Your task to perform on an android device: change notification settings in the gmail app Image 0: 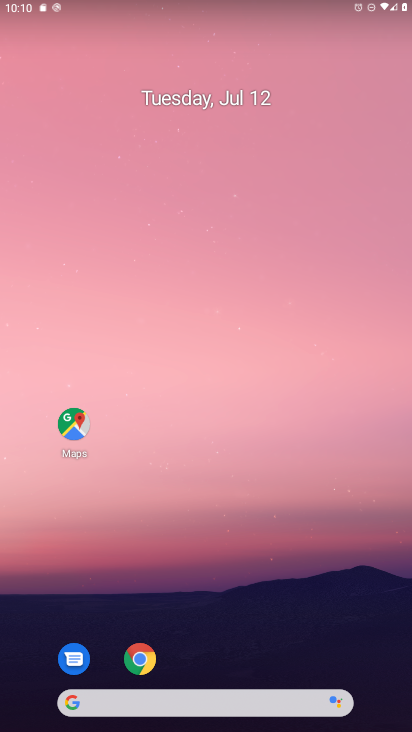
Step 0: drag from (229, 704) to (119, 3)
Your task to perform on an android device: change notification settings in the gmail app Image 1: 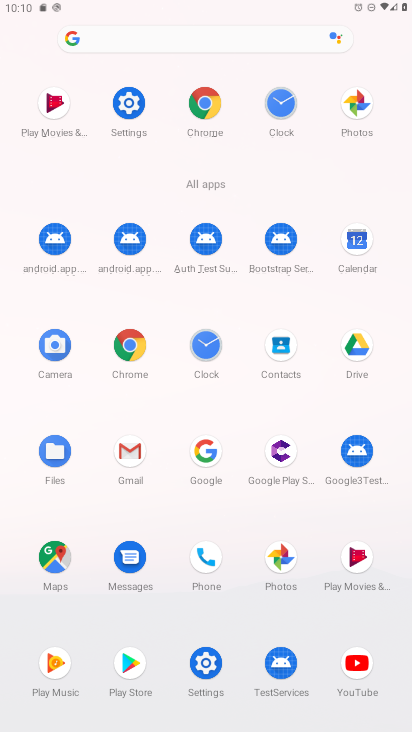
Step 1: click (152, 427)
Your task to perform on an android device: change notification settings in the gmail app Image 2: 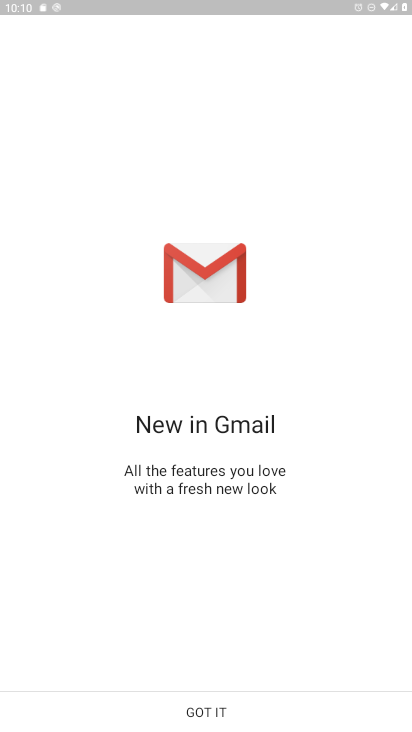
Step 2: click (202, 709)
Your task to perform on an android device: change notification settings in the gmail app Image 3: 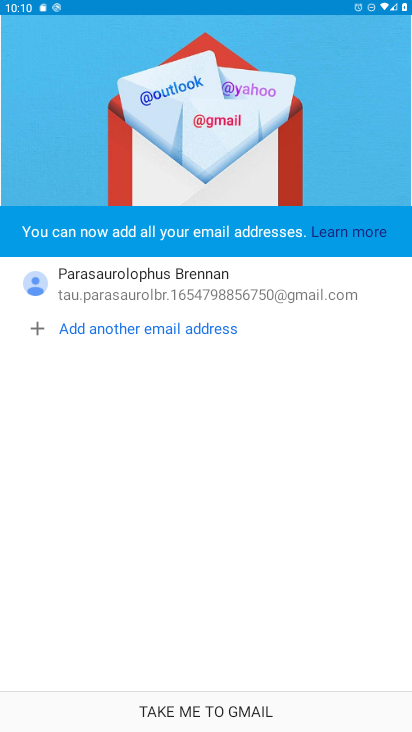
Step 3: click (214, 701)
Your task to perform on an android device: change notification settings in the gmail app Image 4: 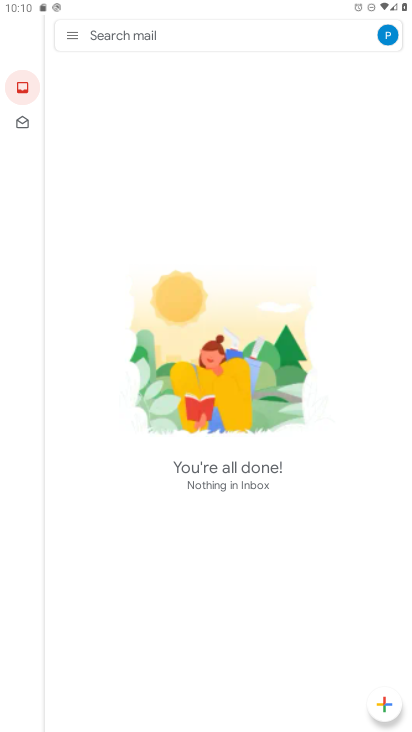
Step 4: click (73, 29)
Your task to perform on an android device: change notification settings in the gmail app Image 5: 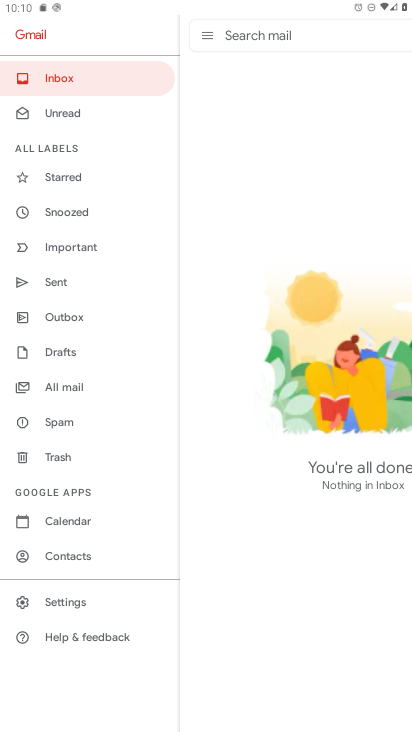
Step 5: click (60, 595)
Your task to perform on an android device: change notification settings in the gmail app Image 6: 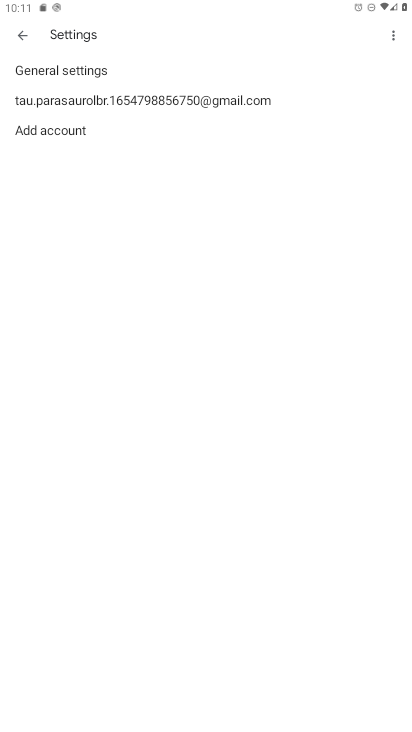
Step 6: click (155, 97)
Your task to perform on an android device: change notification settings in the gmail app Image 7: 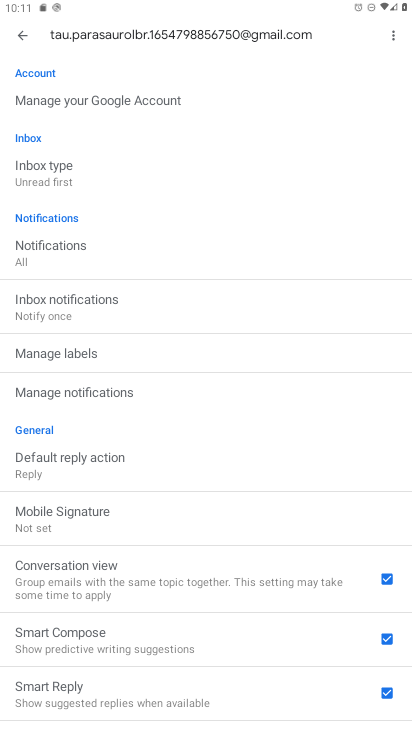
Step 7: click (101, 393)
Your task to perform on an android device: change notification settings in the gmail app Image 8: 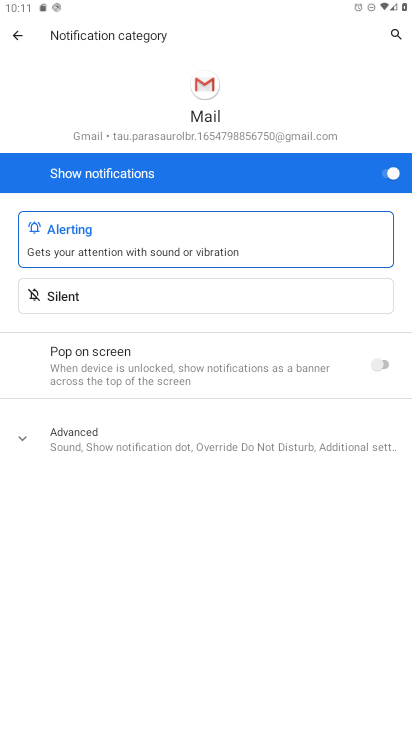
Step 8: click (387, 171)
Your task to perform on an android device: change notification settings in the gmail app Image 9: 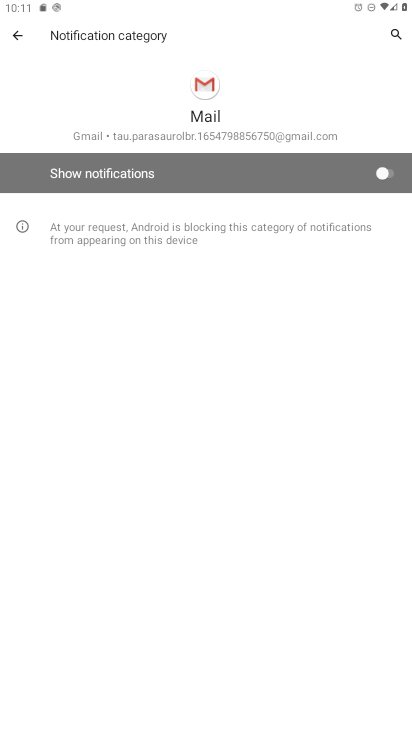
Step 9: task complete